Your task to perform on an android device: Search for the best books on Goodreads. Image 0: 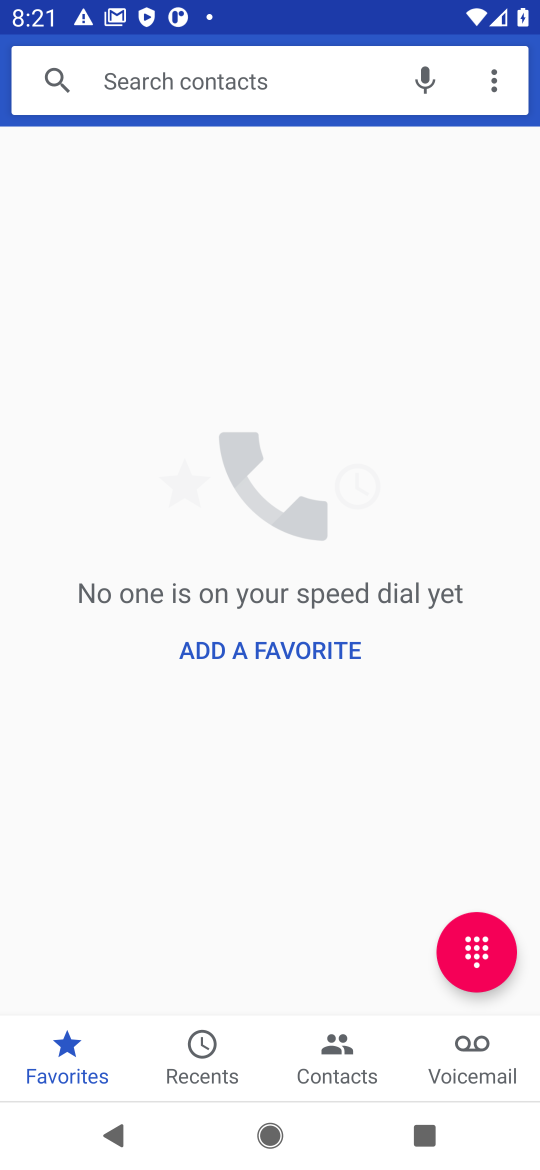
Step 0: press home button
Your task to perform on an android device: Search for the best books on Goodreads. Image 1: 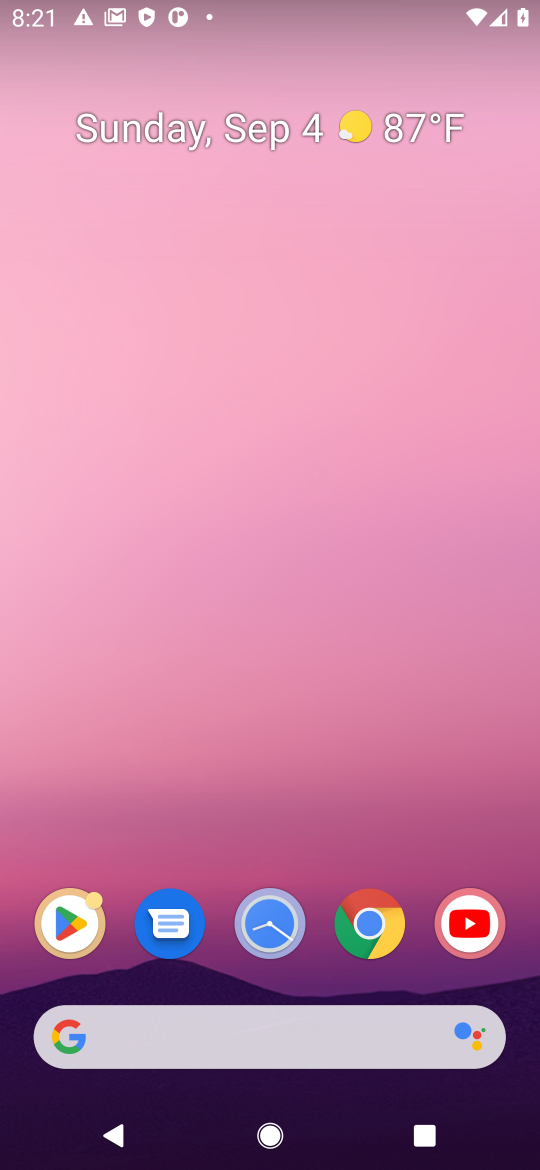
Step 1: click (358, 1028)
Your task to perform on an android device: Search for the best books on Goodreads. Image 2: 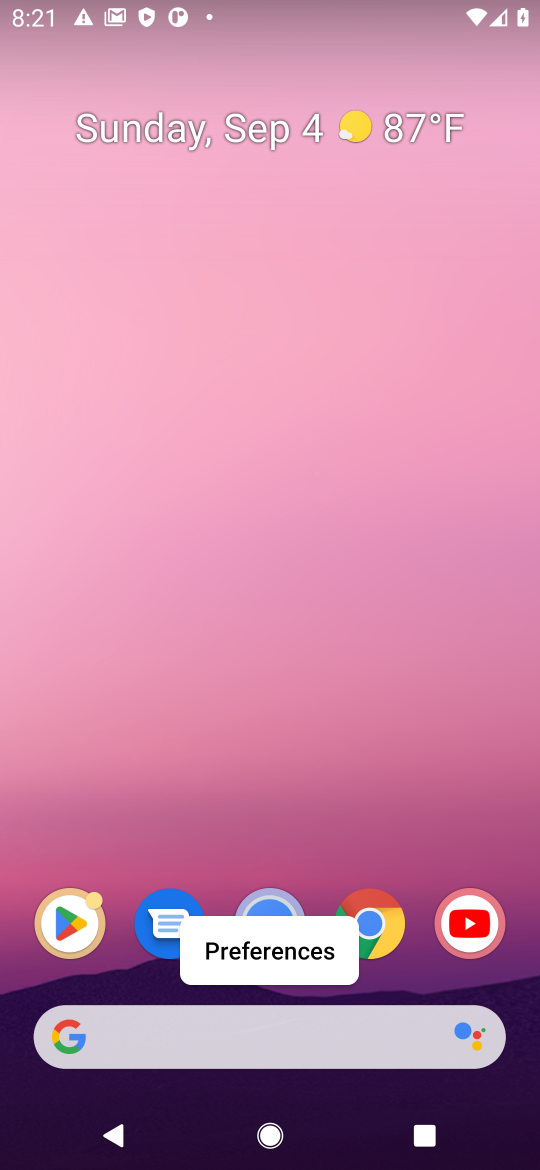
Step 2: click (358, 1028)
Your task to perform on an android device: Search for the best books on Goodreads. Image 3: 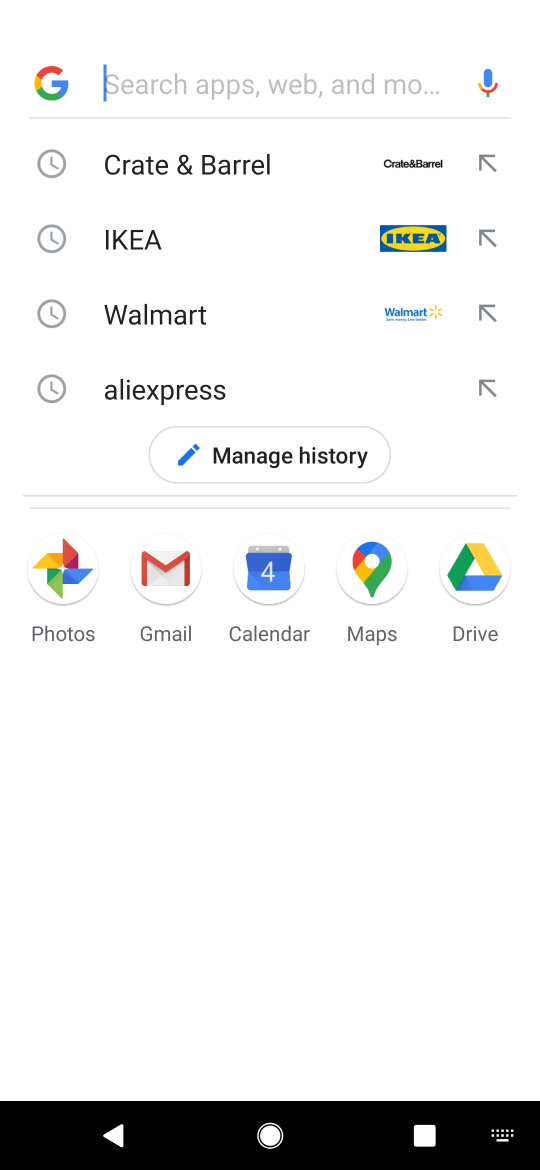
Step 3: press enter
Your task to perform on an android device: Search for the best books on Goodreads. Image 4: 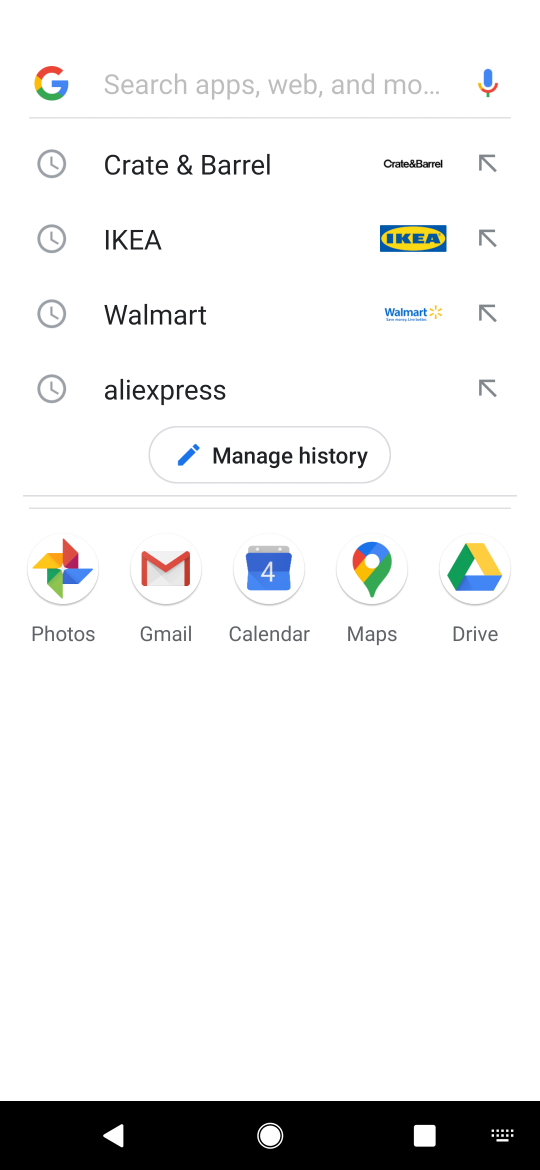
Step 4: type "goodreads"
Your task to perform on an android device: Search for the best books on Goodreads. Image 5: 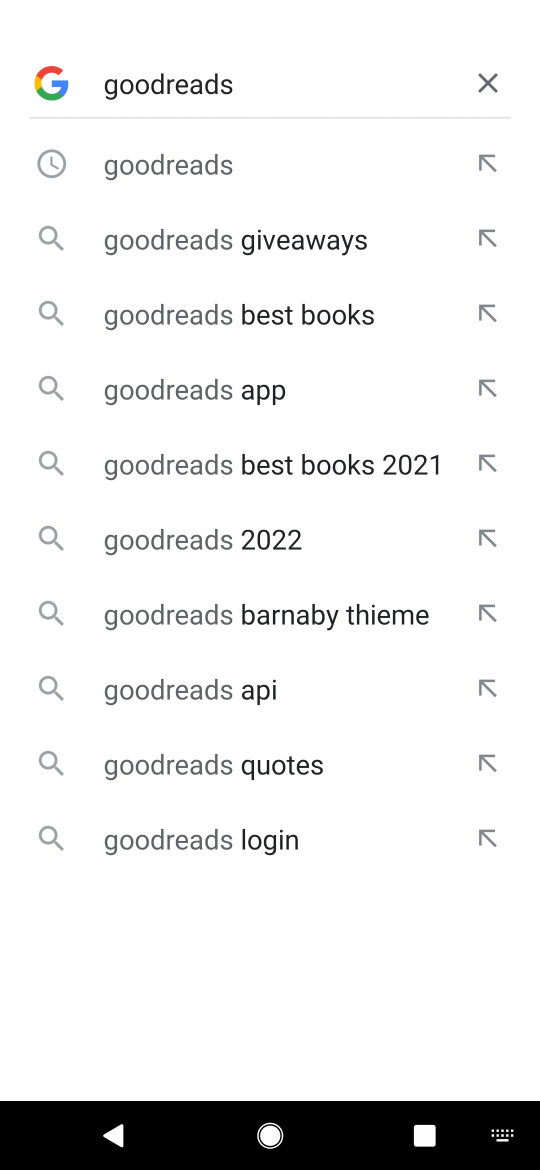
Step 5: click (199, 151)
Your task to perform on an android device: Search for the best books on Goodreads. Image 6: 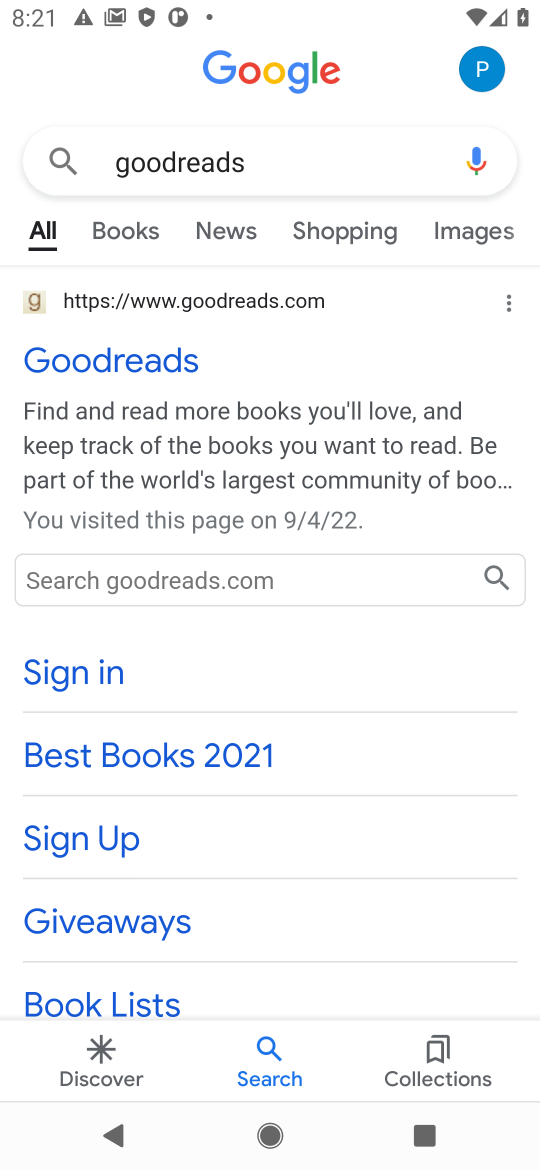
Step 6: click (146, 365)
Your task to perform on an android device: Search for the best books on Goodreads. Image 7: 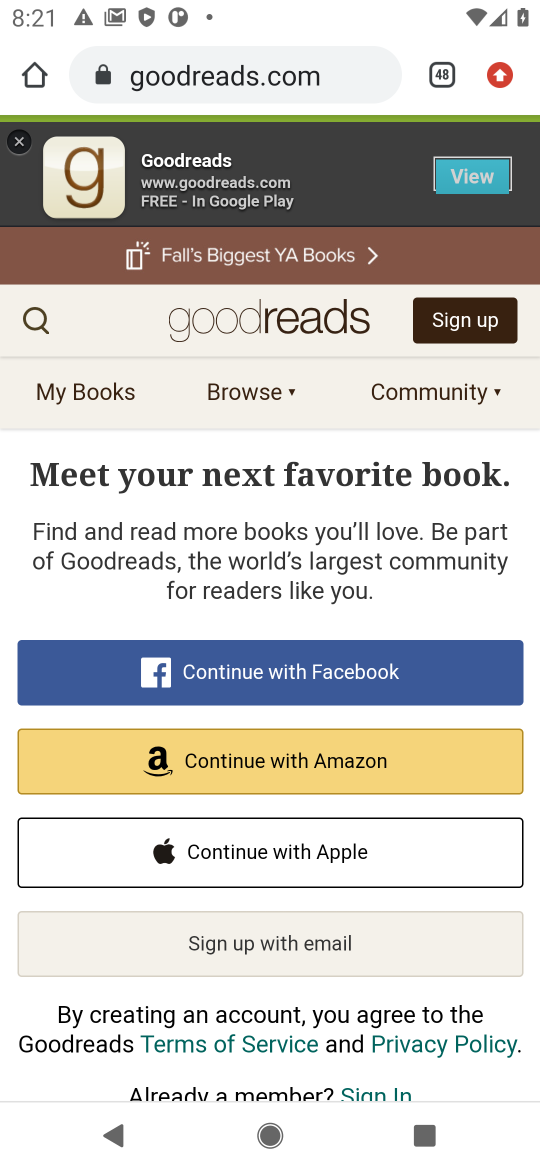
Step 7: click (77, 326)
Your task to perform on an android device: Search for the best books on Goodreads. Image 8: 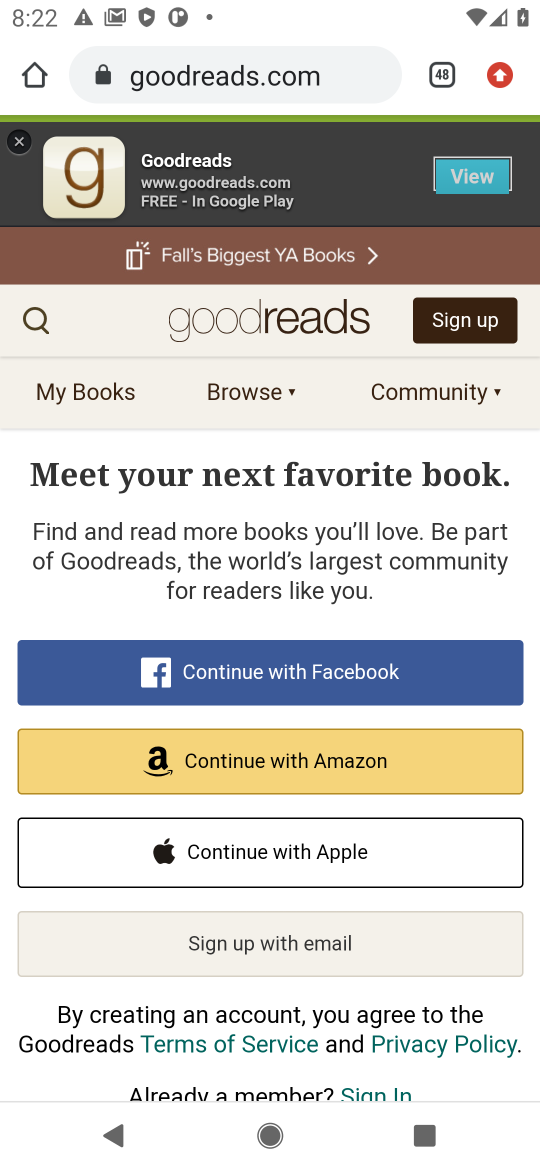
Step 8: click (47, 344)
Your task to perform on an android device: Search for the best books on Goodreads. Image 9: 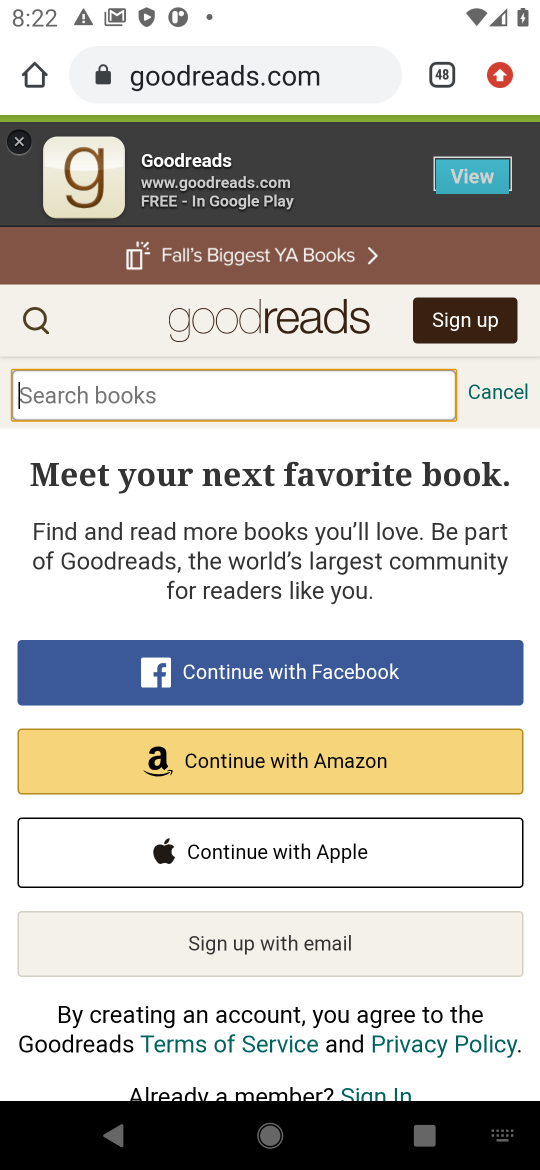
Step 9: press enter
Your task to perform on an android device: Search for the best books on Goodreads. Image 10: 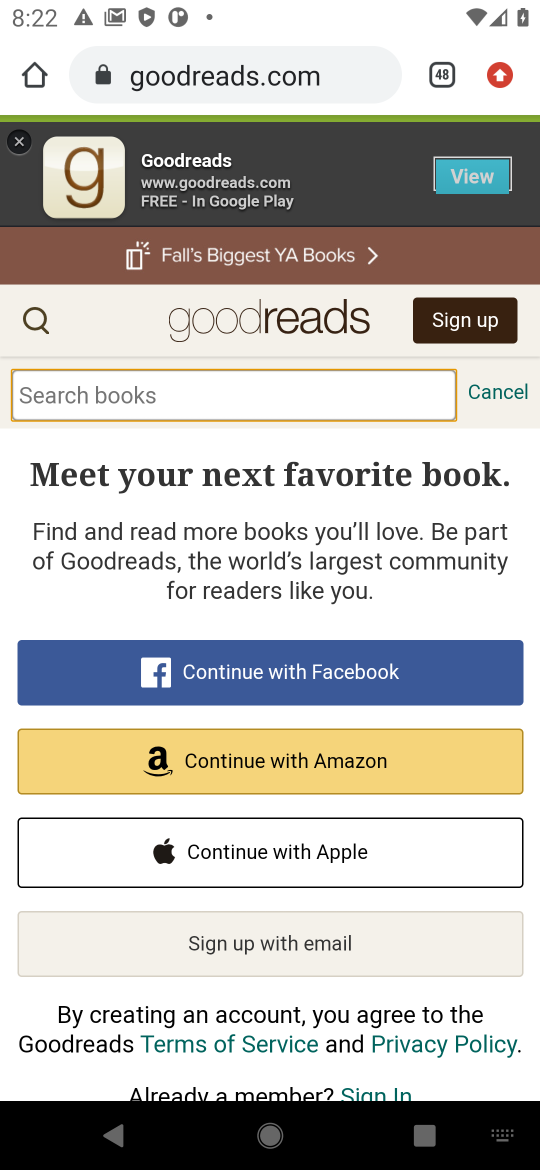
Step 10: type "bestbooks"
Your task to perform on an android device: Search for the best books on Goodreads. Image 11: 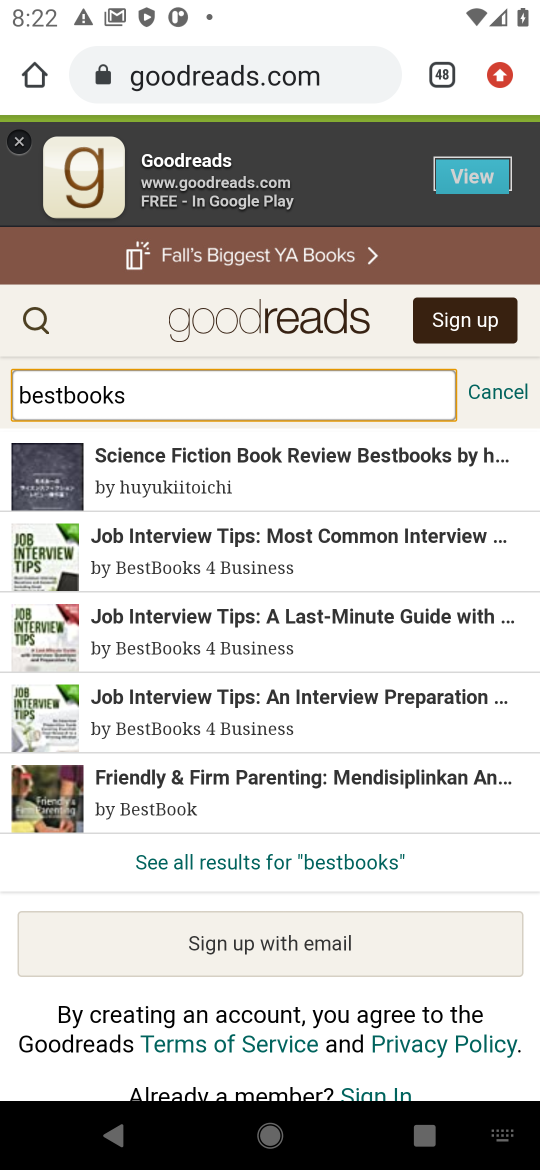
Step 11: task complete